Your task to perform on an android device: turn on bluetooth scan Image 0: 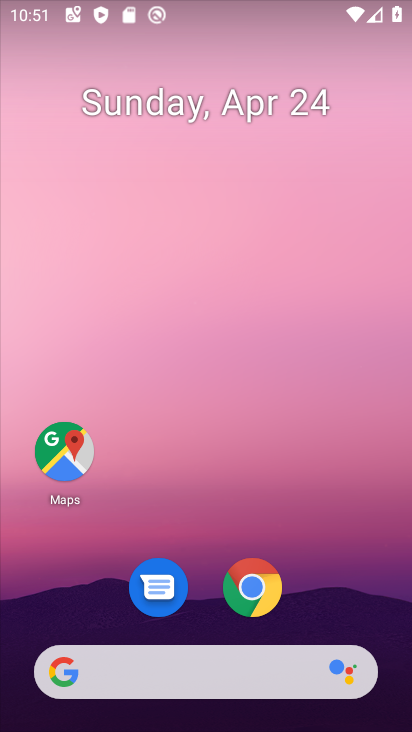
Step 0: click (349, 184)
Your task to perform on an android device: turn on bluetooth scan Image 1: 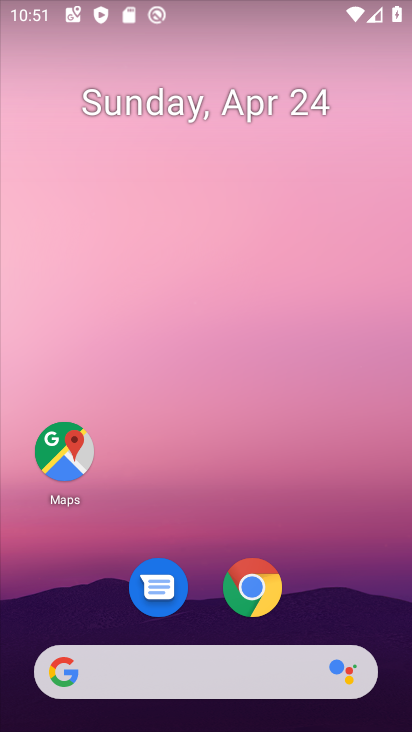
Step 1: drag from (345, 583) to (289, 118)
Your task to perform on an android device: turn on bluetooth scan Image 2: 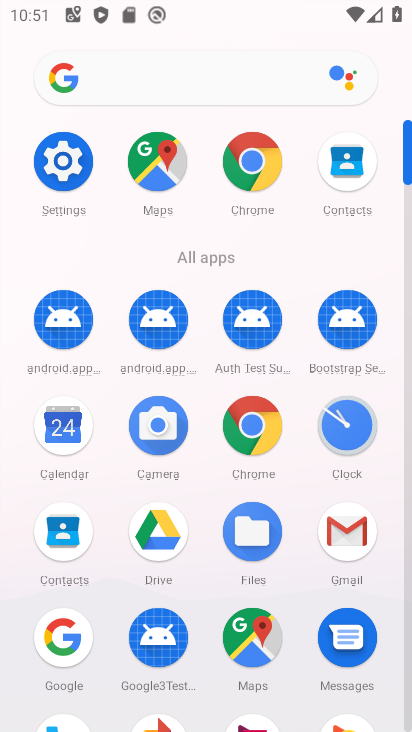
Step 2: drag from (302, 607) to (308, 213)
Your task to perform on an android device: turn on bluetooth scan Image 3: 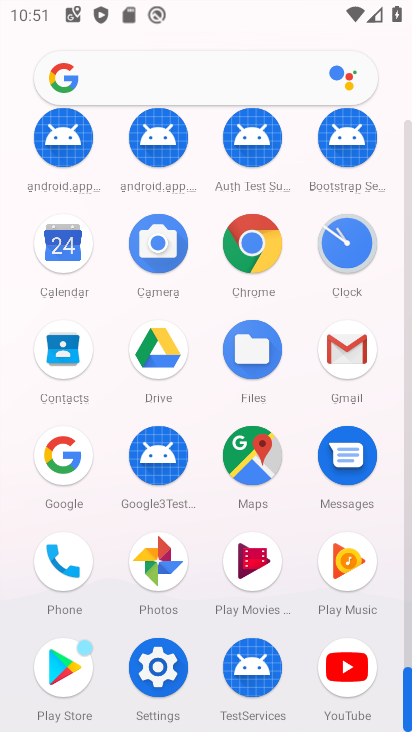
Step 3: click (156, 684)
Your task to perform on an android device: turn on bluetooth scan Image 4: 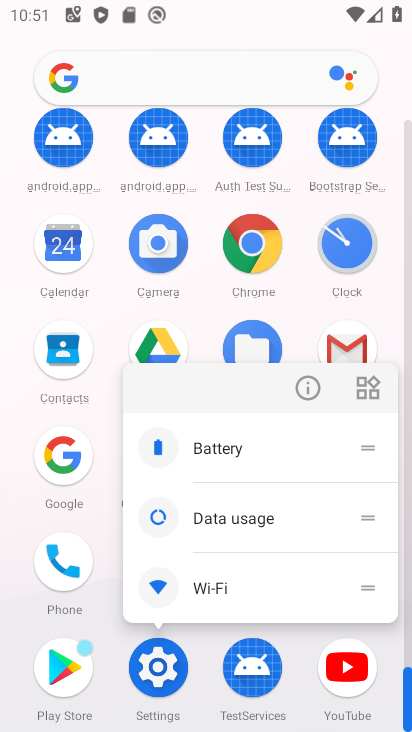
Step 4: click (151, 683)
Your task to perform on an android device: turn on bluetooth scan Image 5: 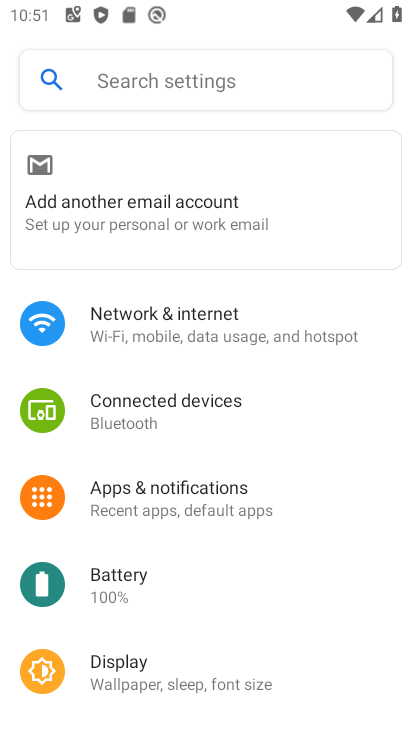
Step 5: drag from (205, 562) to (212, 207)
Your task to perform on an android device: turn on bluetooth scan Image 6: 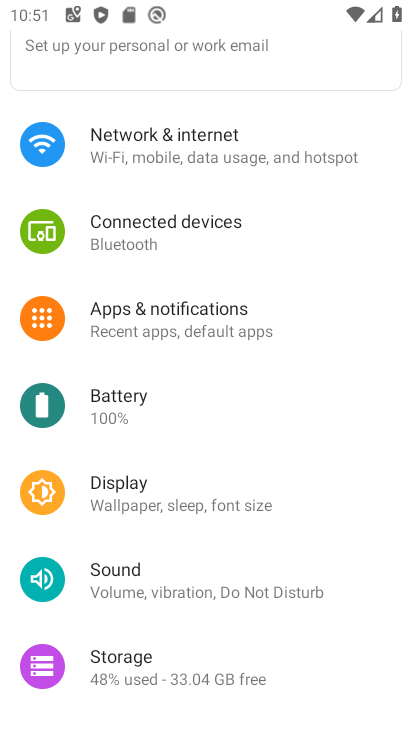
Step 6: drag from (222, 571) to (234, 162)
Your task to perform on an android device: turn on bluetooth scan Image 7: 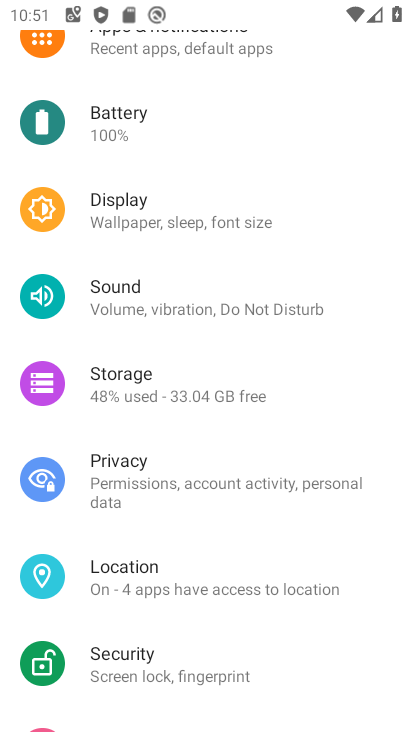
Step 7: click (175, 581)
Your task to perform on an android device: turn on bluetooth scan Image 8: 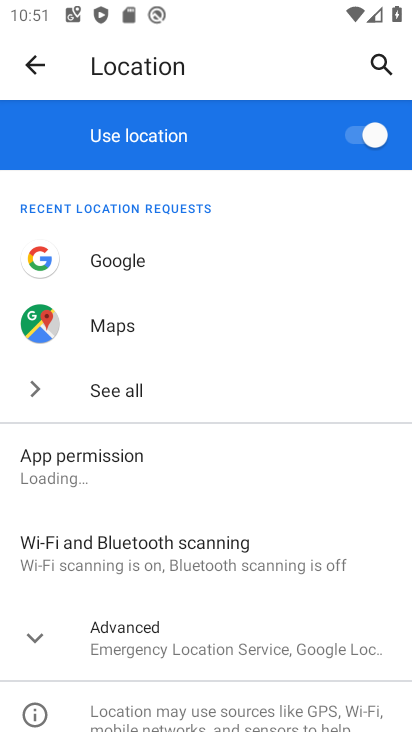
Step 8: click (157, 555)
Your task to perform on an android device: turn on bluetooth scan Image 9: 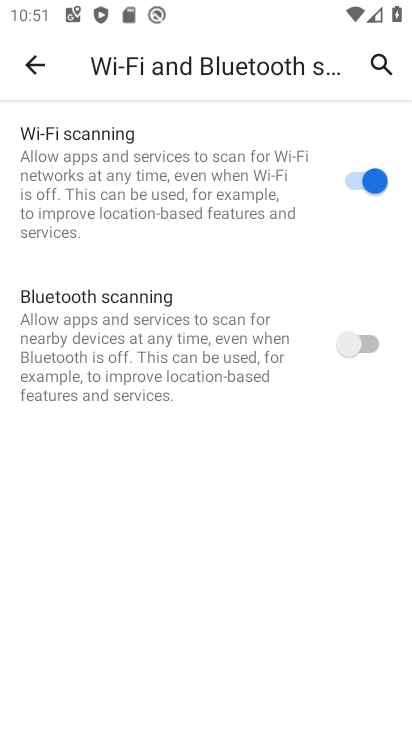
Step 9: click (363, 337)
Your task to perform on an android device: turn on bluetooth scan Image 10: 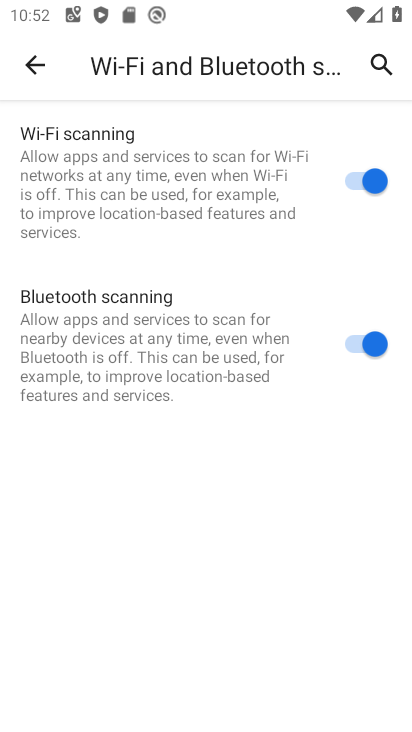
Step 10: task complete